Your task to perform on an android device: add a label to a message in the gmail app Image 0: 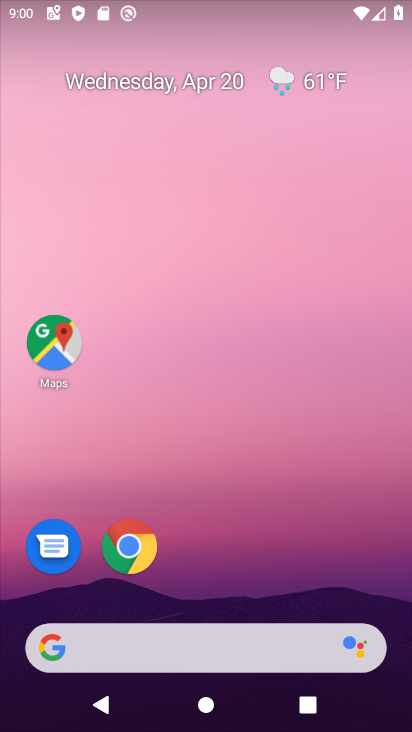
Step 0: drag from (208, 717) to (198, 27)
Your task to perform on an android device: add a label to a message in the gmail app Image 1: 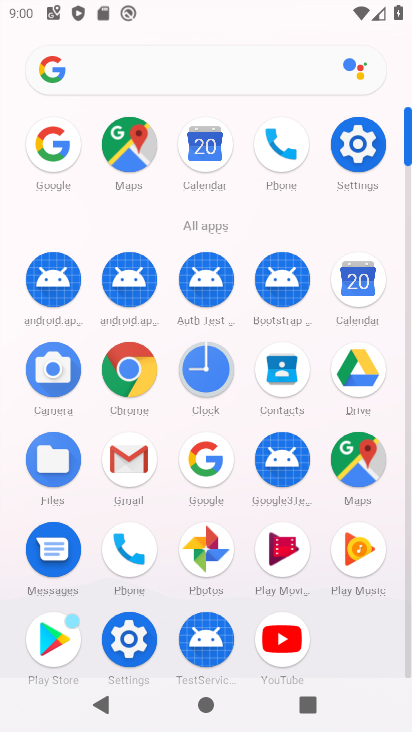
Step 1: click (136, 457)
Your task to perform on an android device: add a label to a message in the gmail app Image 2: 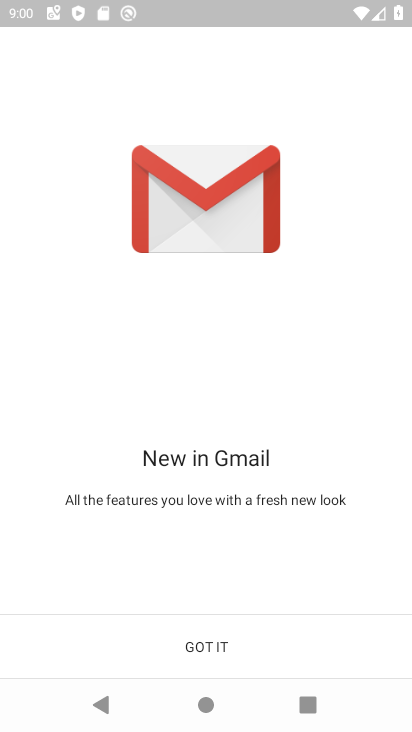
Step 2: click (203, 645)
Your task to perform on an android device: add a label to a message in the gmail app Image 3: 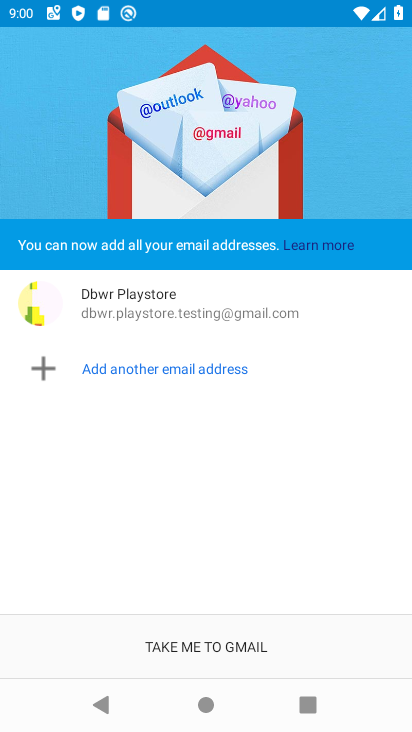
Step 3: click (203, 645)
Your task to perform on an android device: add a label to a message in the gmail app Image 4: 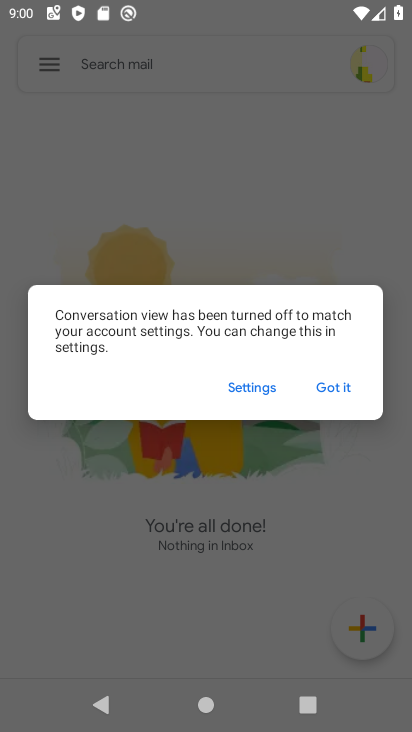
Step 4: click (335, 381)
Your task to perform on an android device: add a label to a message in the gmail app Image 5: 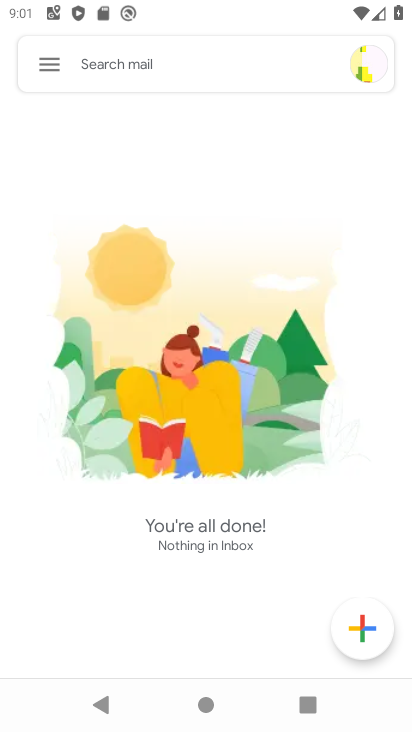
Step 5: task complete